Your task to perform on an android device: Search for pizza restaurants on Maps Image 0: 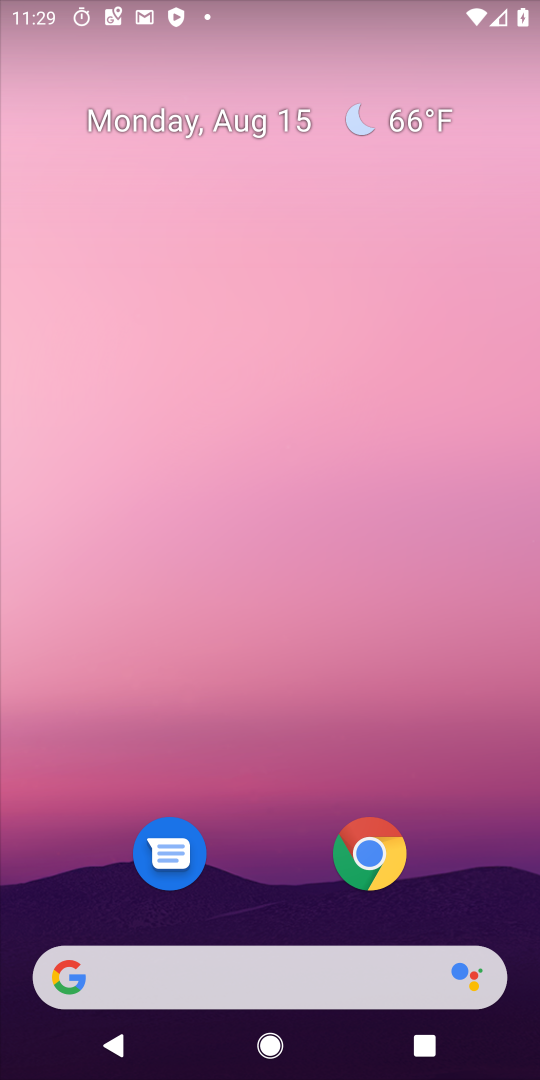
Step 0: drag from (244, 903) to (312, 446)
Your task to perform on an android device: Search for pizza restaurants on Maps Image 1: 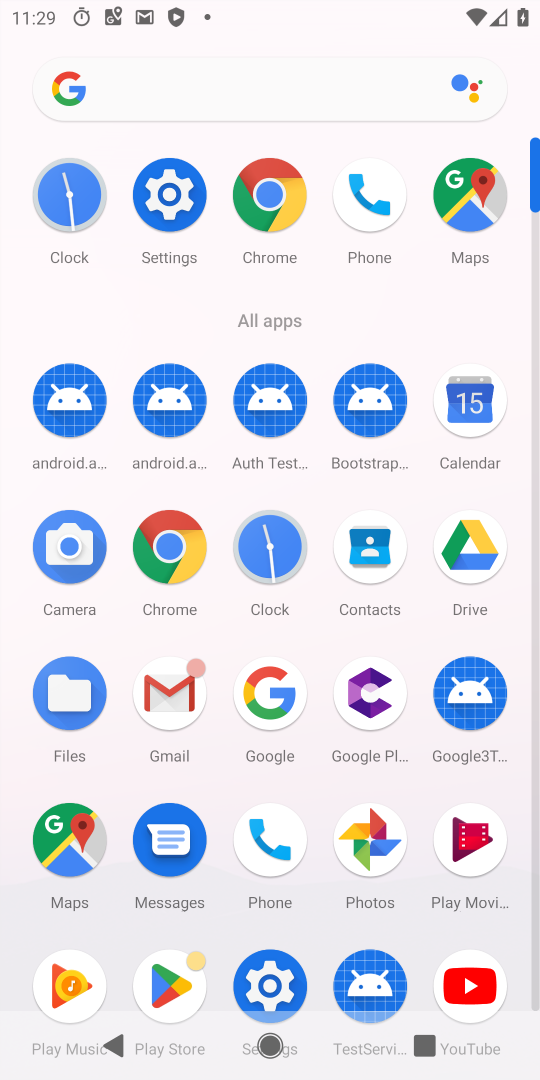
Step 1: click (69, 841)
Your task to perform on an android device: Search for pizza restaurants on Maps Image 2: 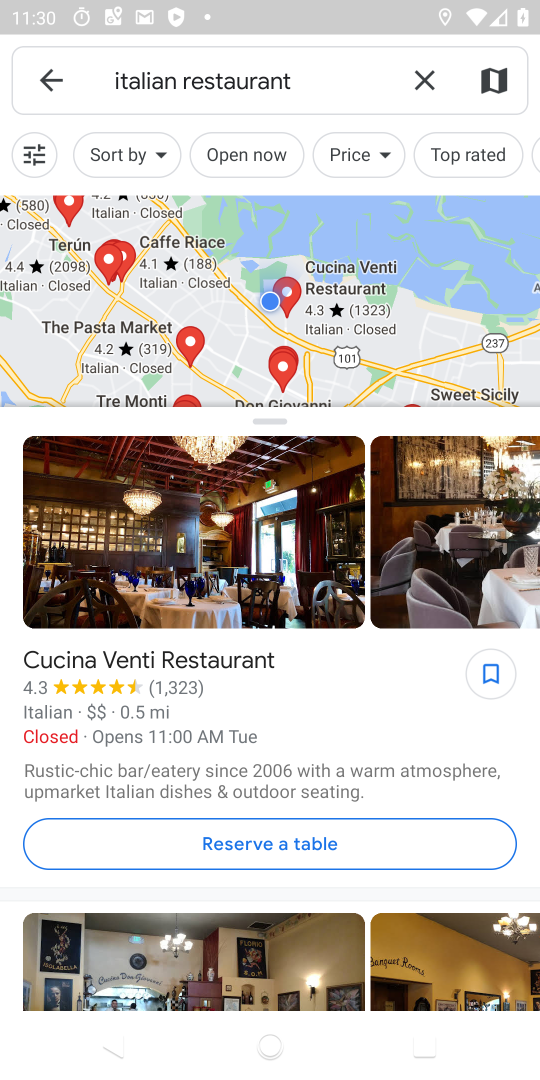
Step 2: click (415, 75)
Your task to perform on an android device: Search for pizza restaurants on Maps Image 3: 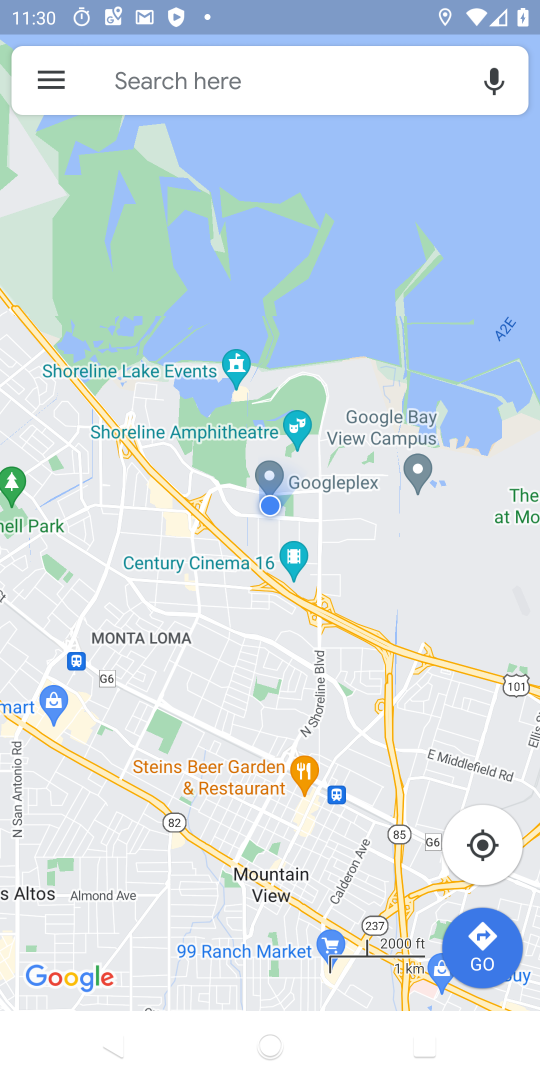
Step 3: click (234, 83)
Your task to perform on an android device: Search for pizza restaurants on Maps Image 4: 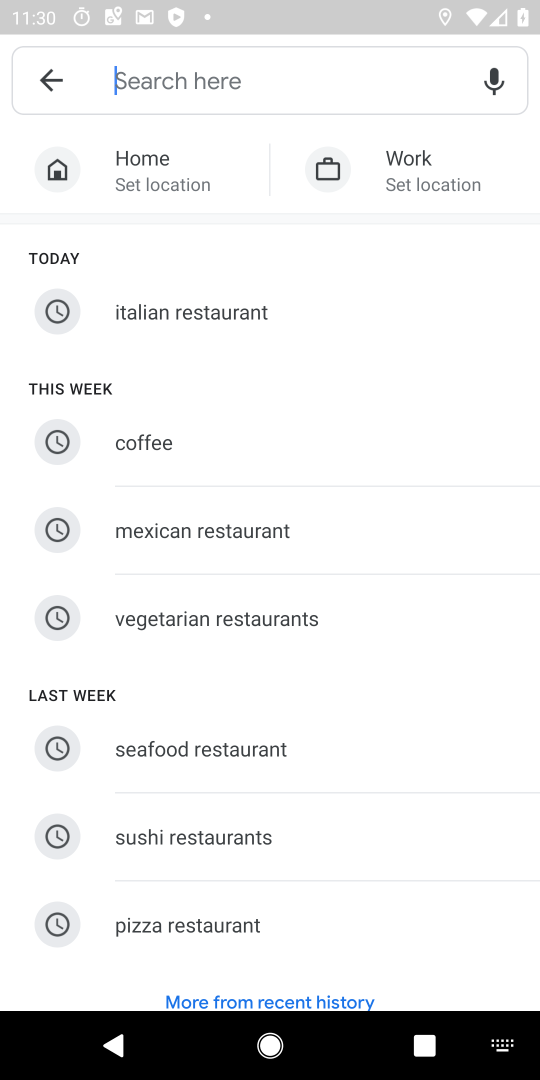
Step 4: click (181, 926)
Your task to perform on an android device: Search for pizza restaurants on Maps Image 5: 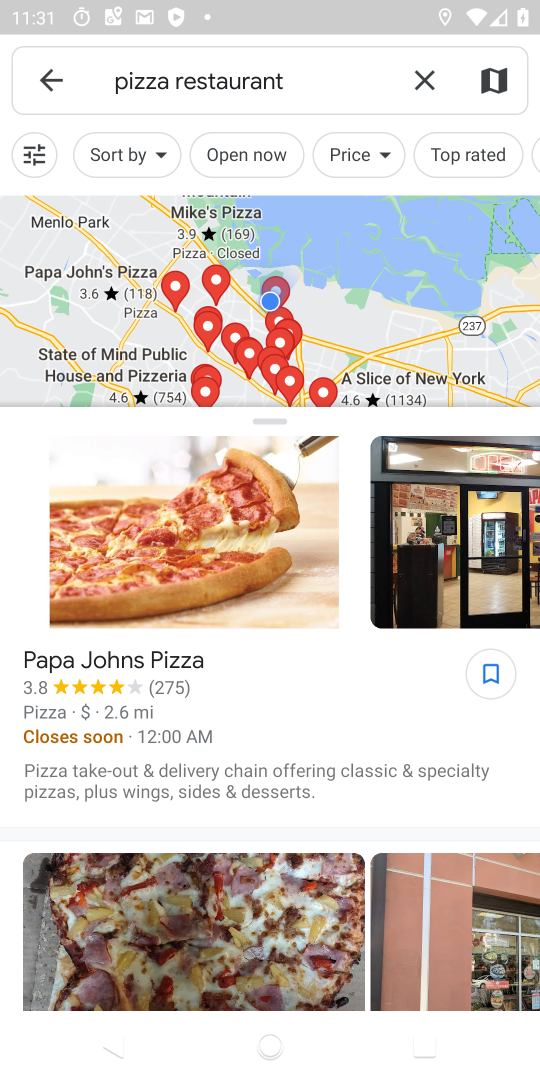
Step 5: task complete